Your task to perform on an android device: Go to calendar. Show me events next week Image 0: 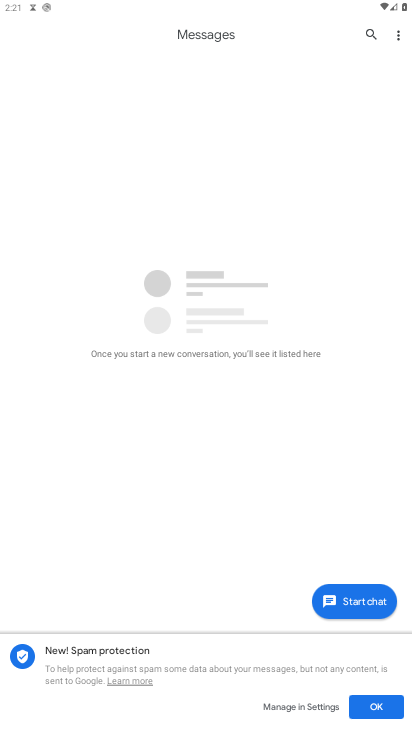
Step 0: press home button
Your task to perform on an android device: Go to calendar. Show me events next week Image 1: 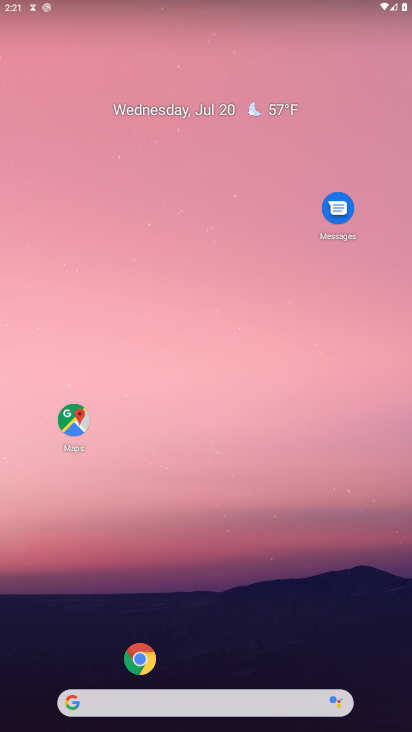
Step 1: drag from (48, 653) to (218, 245)
Your task to perform on an android device: Go to calendar. Show me events next week Image 2: 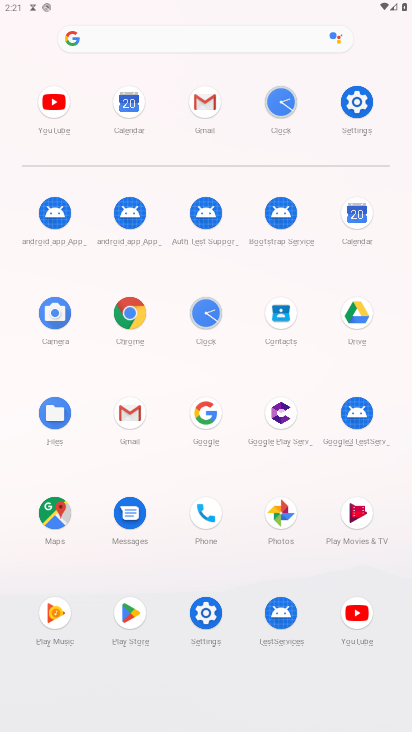
Step 2: click (290, 316)
Your task to perform on an android device: Go to calendar. Show me events next week Image 3: 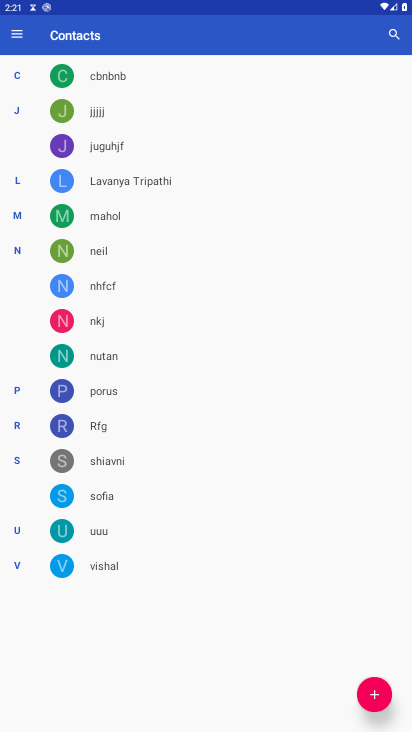
Step 3: press home button
Your task to perform on an android device: Go to calendar. Show me events next week Image 4: 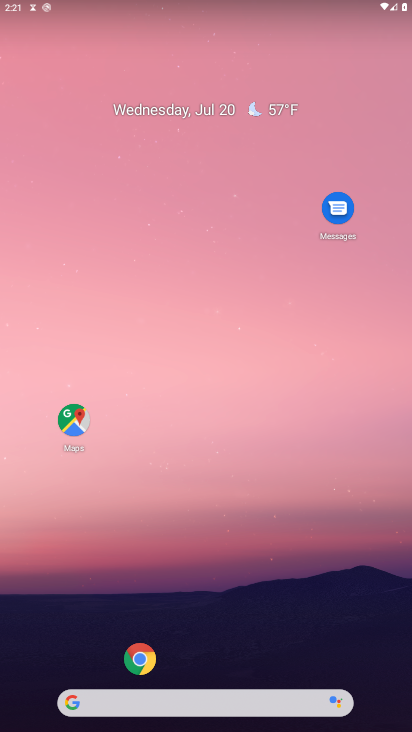
Step 4: drag from (62, 584) to (191, 244)
Your task to perform on an android device: Go to calendar. Show me events next week Image 5: 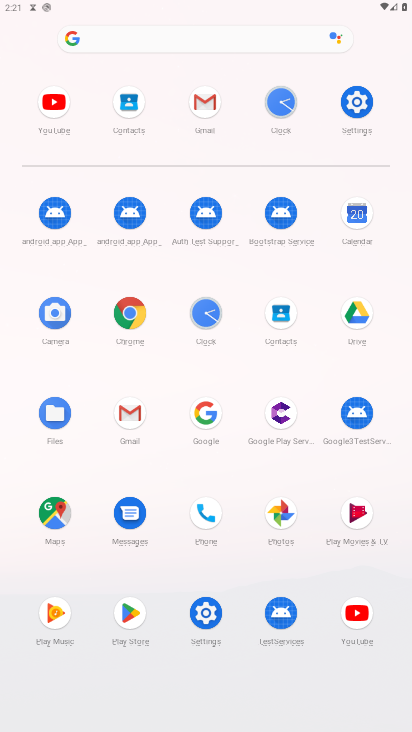
Step 5: click (334, 216)
Your task to perform on an android device: Go to calendar. Show me events next week Image 6: 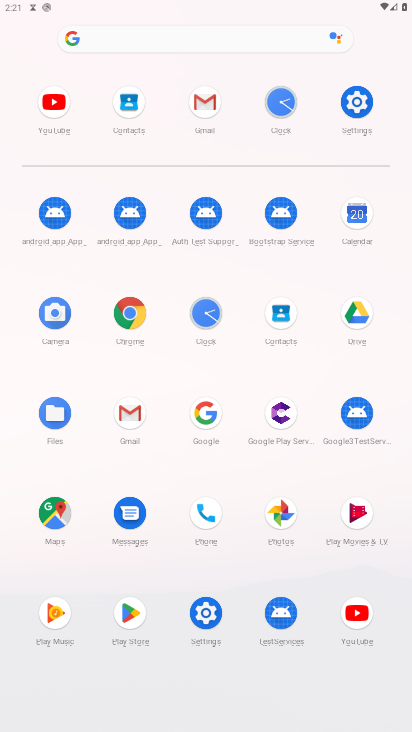
Step 6: click (340, 216)
Your task to perform on an android device: Go to calendar. Show me events next week Image 7: 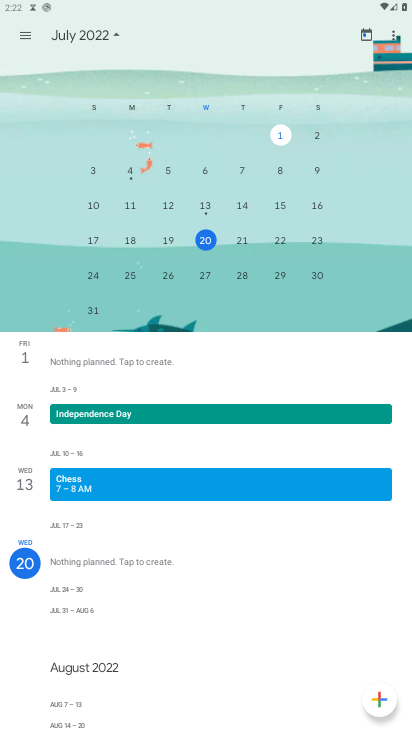
Step 7: task complete